Your task to perform on an android device: Show the shopping cart on costco. Image 0: 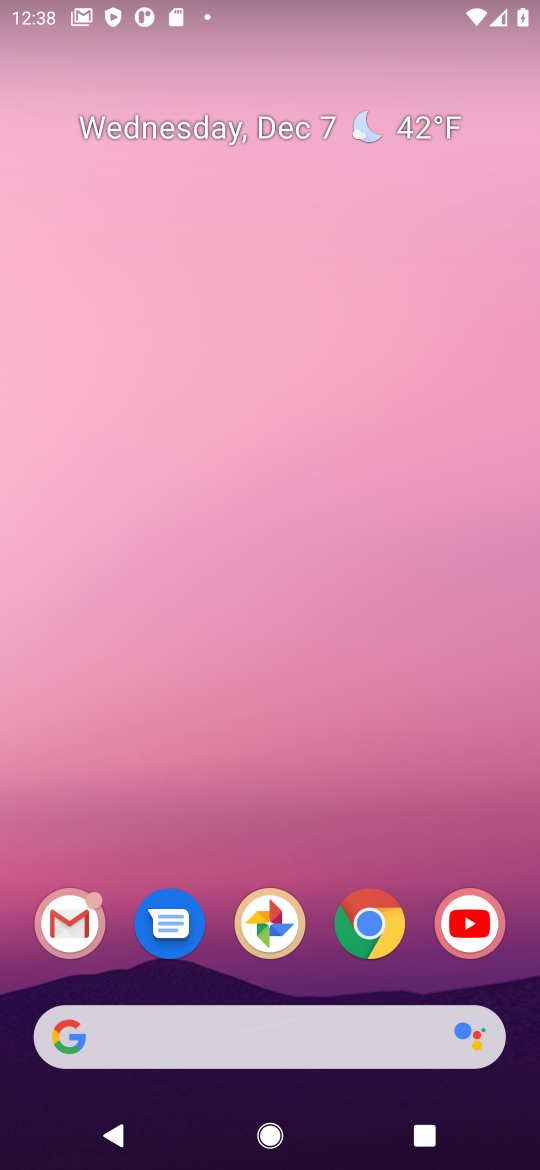
Step 0: task complete